Your task to perform on an android device: Add bose soundsport free to the cart on ebay, then select checkout. Image 0: 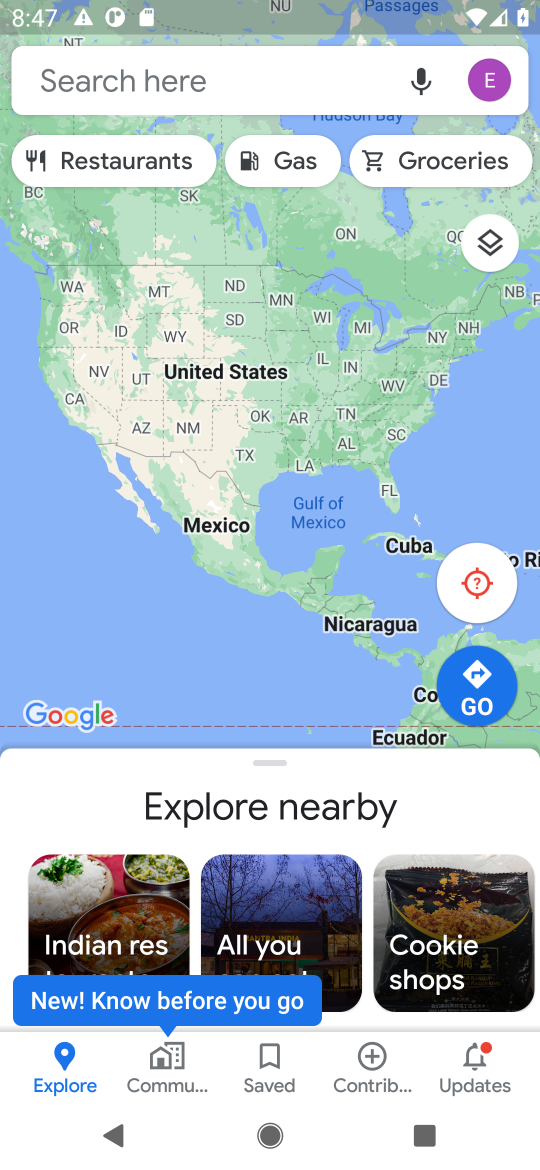
Step 0: press home button
Your task to perform on an android device: Add bose soundsport free to the cart on ebay, then select checkout. Image 1: 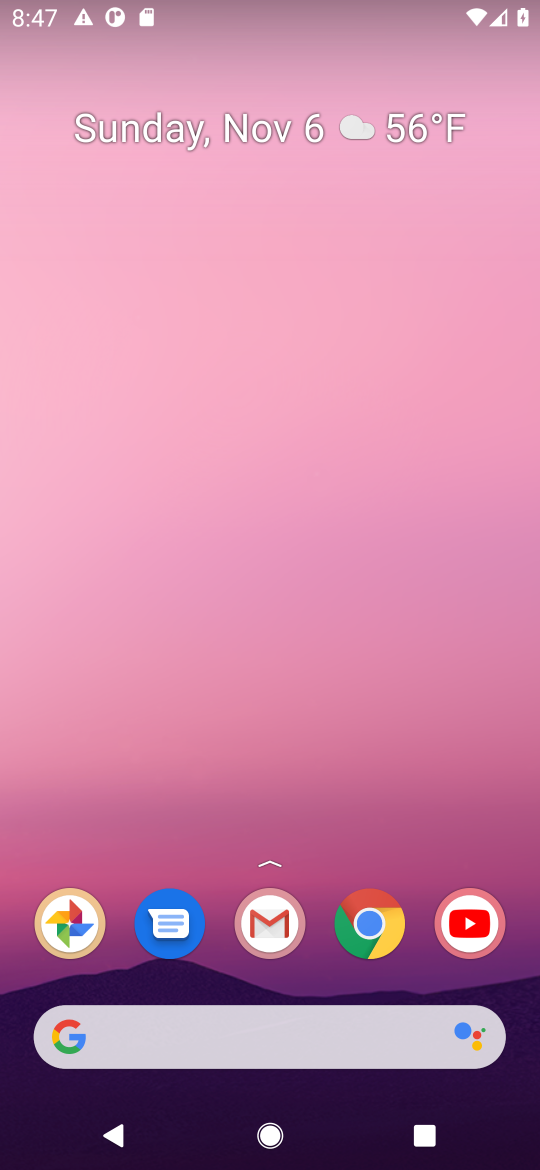
Step 1: click (357, 930)
Your task to perform on an android device: Add bose soundsport free to the cart on ebay, then select checkout. Image 2: 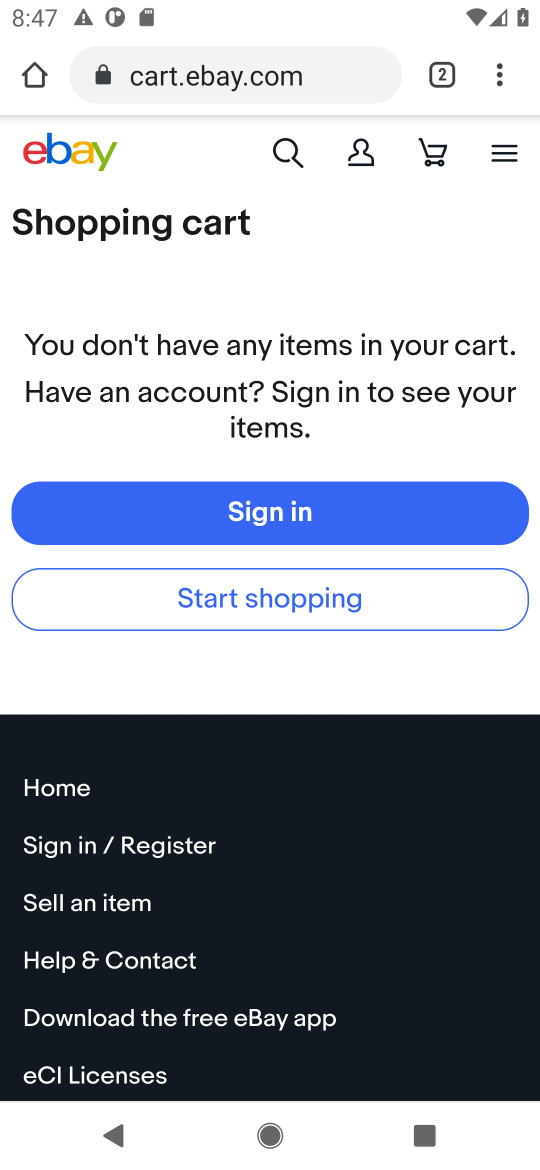
Step 2: click (274, 152)
Your task to perform on an android device: Add bose soundsport free to the cart on ebay, then select checkout. Image 3: 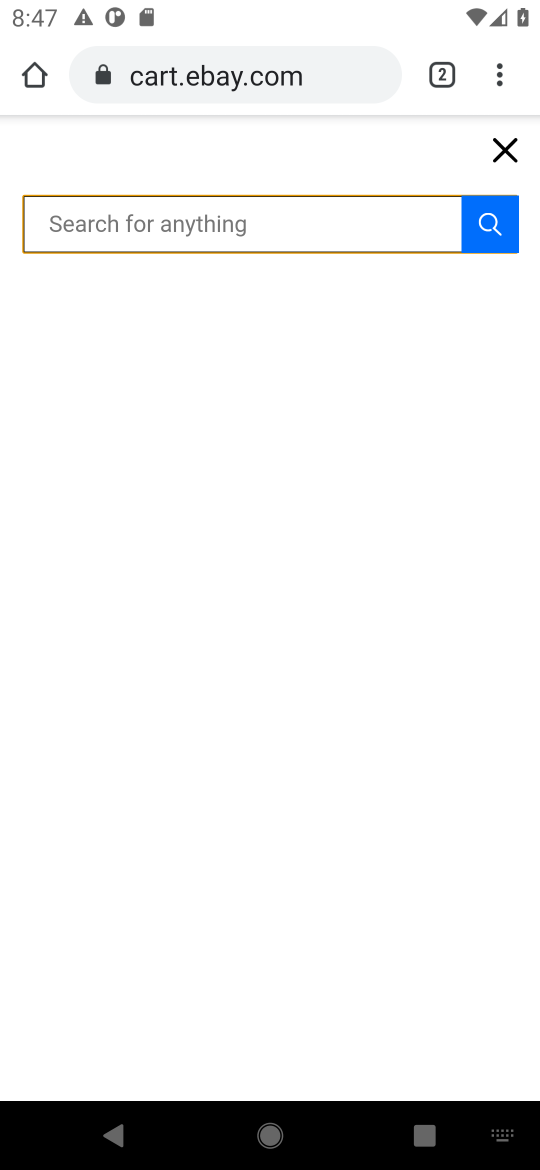
Step 3: type "bose soundsport free"
Your task to perform on an android device: Add bose soundsport free to the cart on ebay, then select checkout. Image 4: 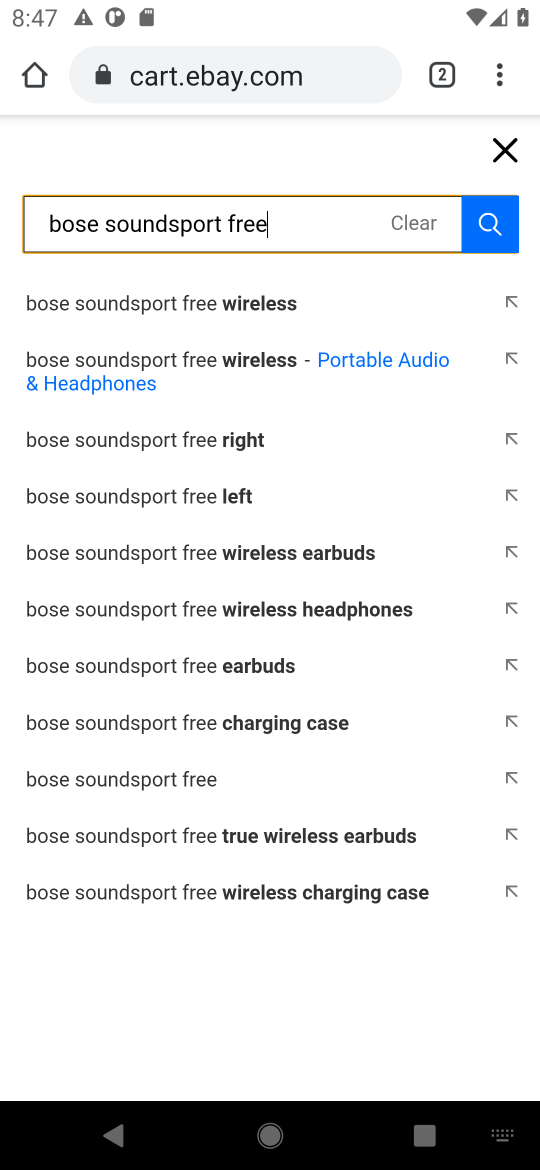
Step 4: click (494, 209)
Your task to perform on an android device: Add bose soundsport free to the cart on ebay, then select checkout. Image 5: 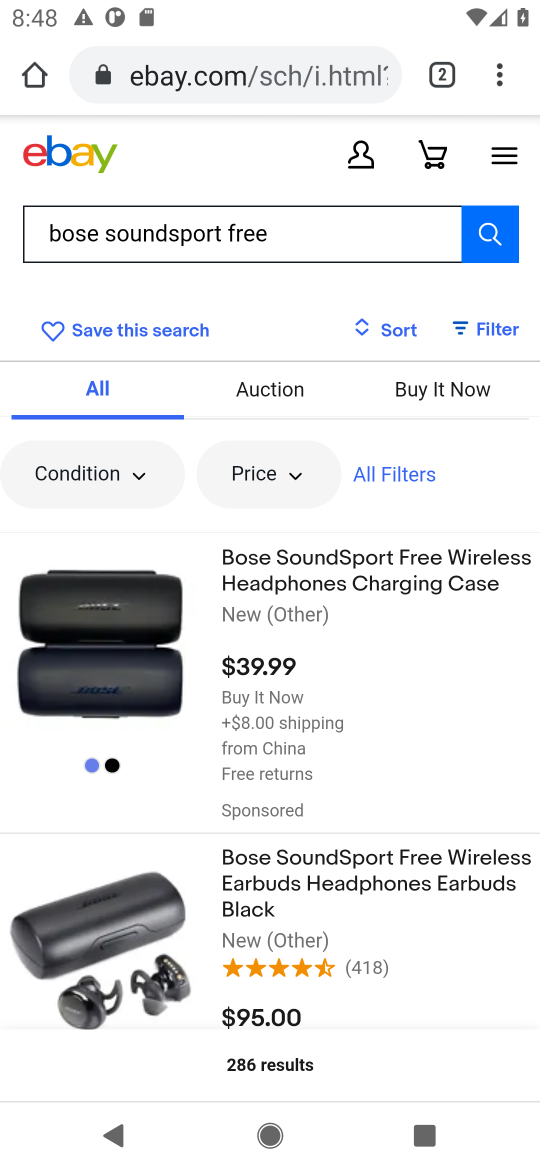
Step 5: click (109, 641)
Your task to perform on an android device: Add bose soundsport free to the cart on ebay, then select checkout. Image 6: 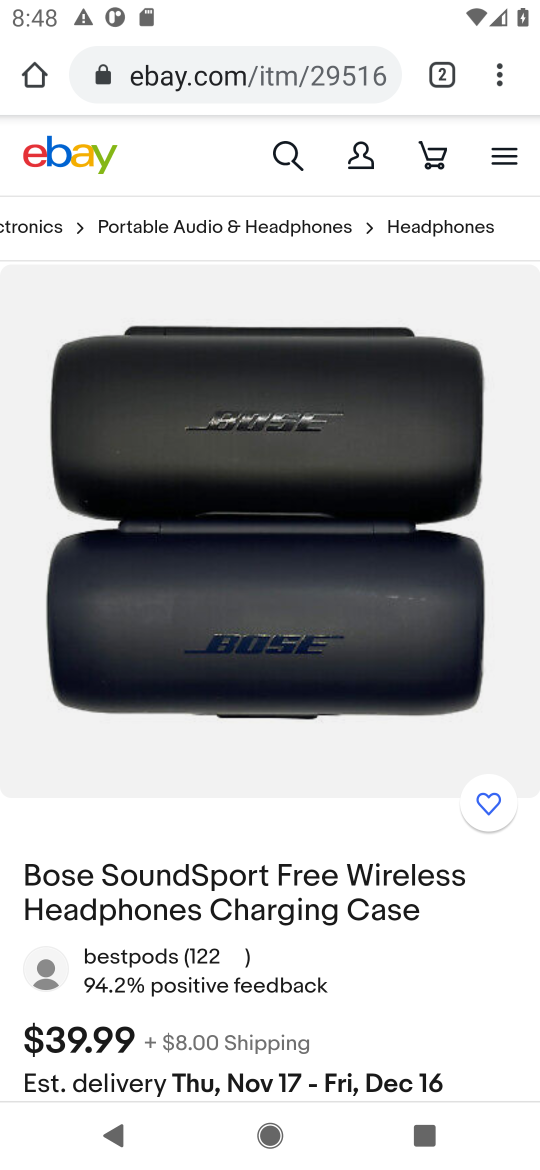
Step 6: drag from (225, 923) to (218, 373)
Your task to perform on an android device: Add bose soundsport free to the cart on ebay, then select checkout. Image 7: 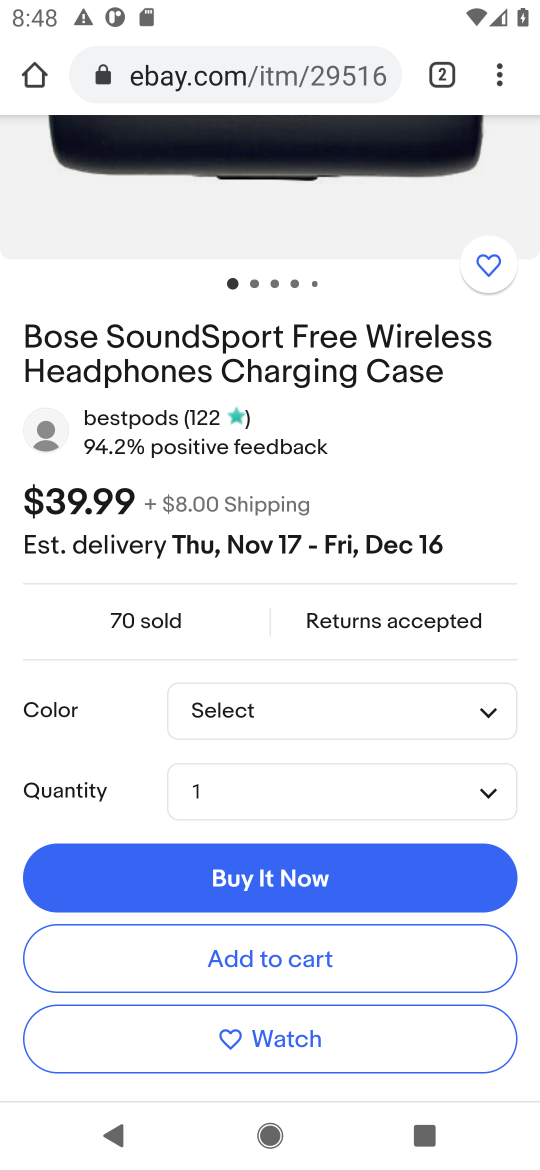
Step 7: click (273, 955)
Your task to perform on an android device: Add bose soundsport free to the cart on ebay, then select checkout. Image 8: 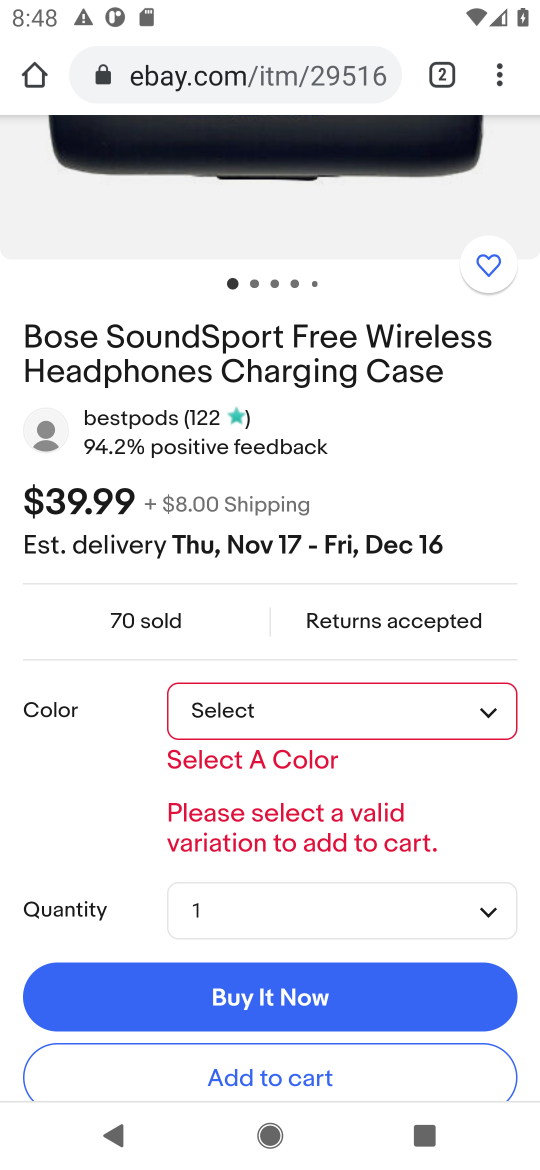
Step 8: click (496, 726)
Your task to perform on an android device: Add bose soundsport free to the cart on ebay, then select checkout. Image 9: 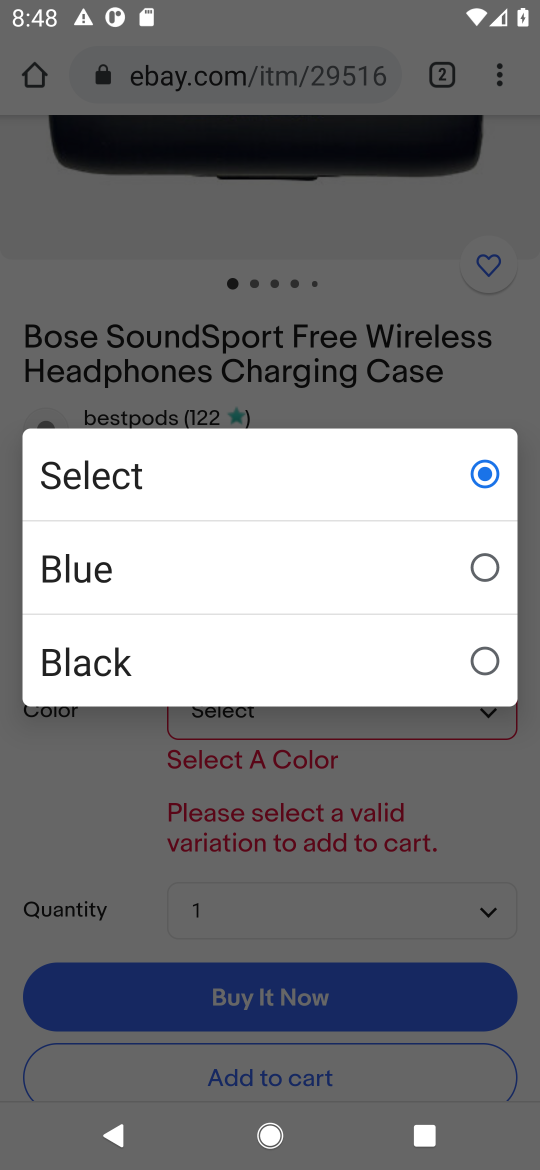
Step 9: click (92, 593)
Your task to perform on an android device: Add bose soundsport free to the cart on ebay, then select checkout. Image 10: 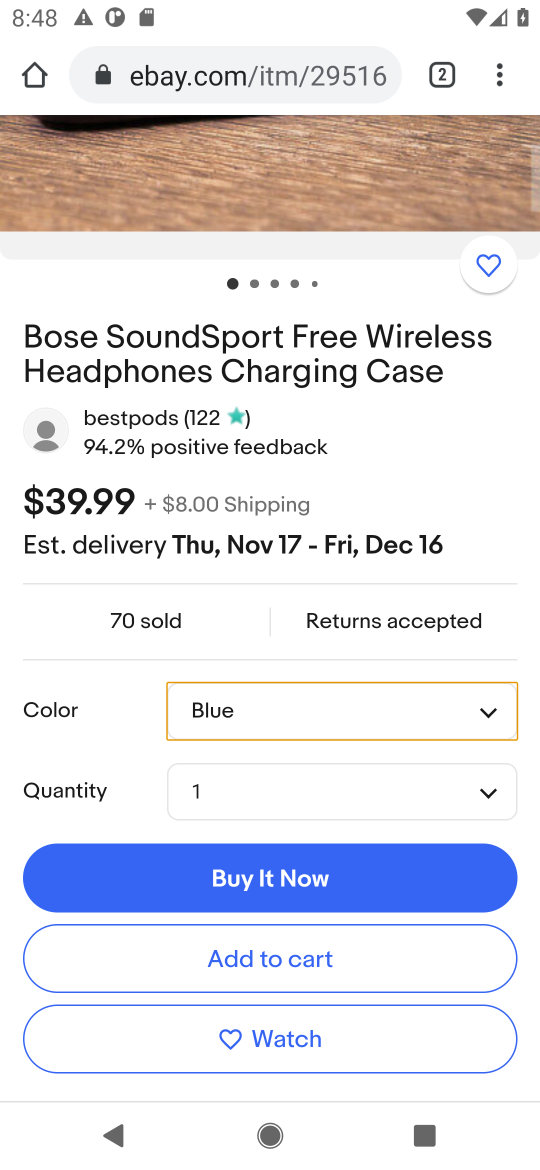
Step 10: click (288, 955)
Your task to perform on an android device: Add bose soundsport free to the cart on ebay, then select checkout. Image 11: 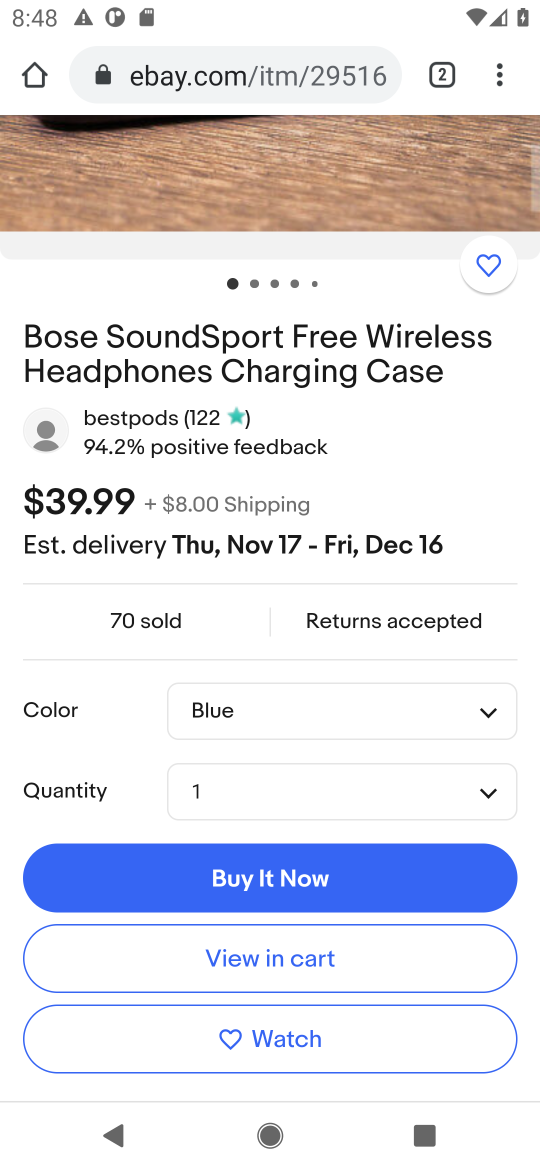
Step 11: click (288, 955)
Your task to perform on an android device: Add bose soundsport free to the cart on ebay, then select checkout. Image 12: 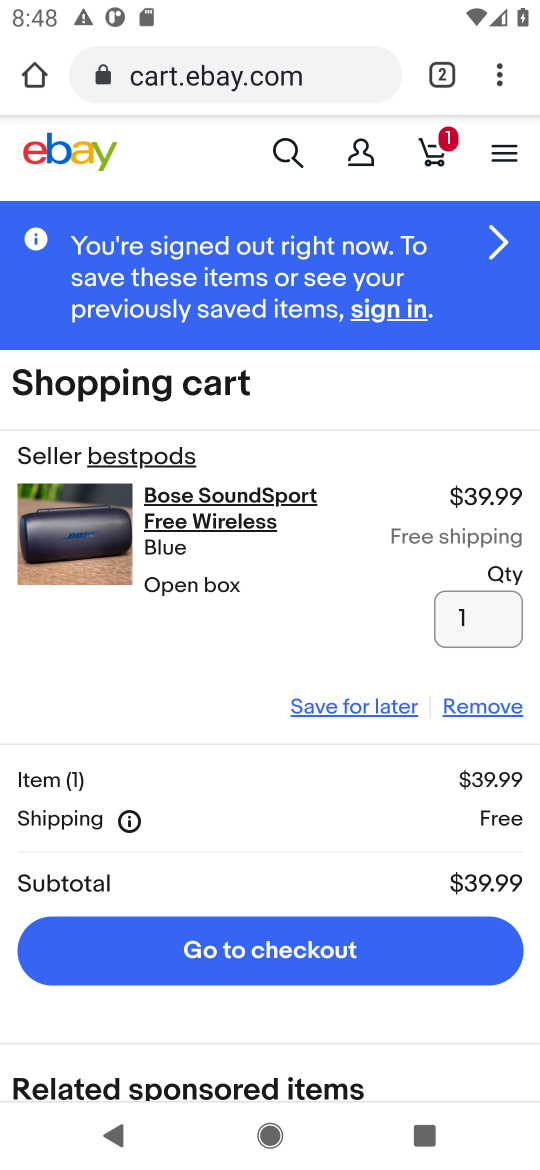
Step 12: click (285, 957)
Your task to perform on an android device: Add bose soundsport free to the cart on ebay, then select checkout. Image 13: 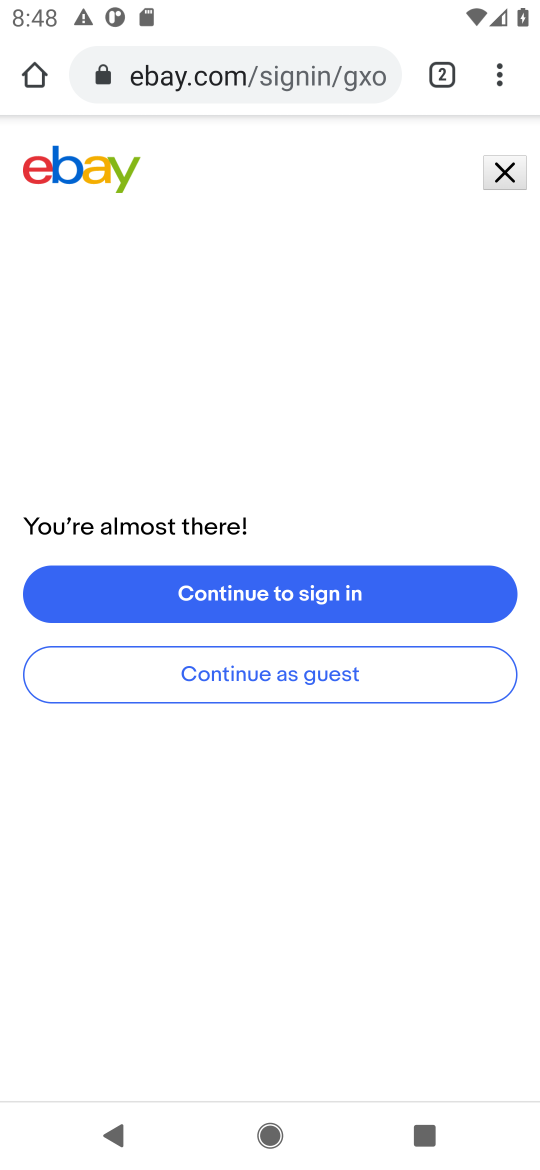
Step 13: click (498, 165)
Your task to perform on an android device: Add bose soundsport free to the cart on ebay, then select checkout. Image 14: 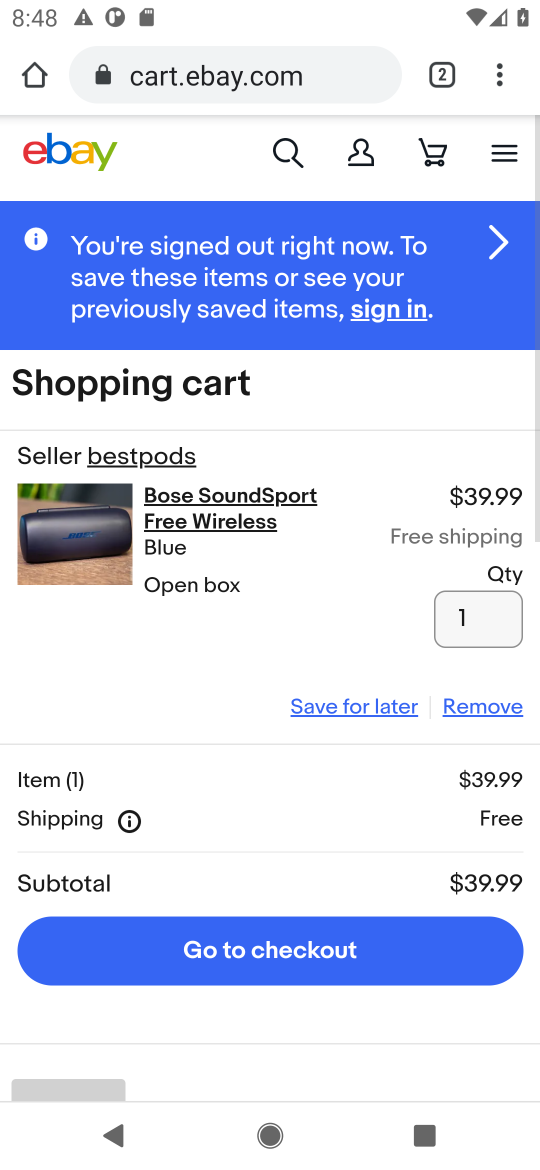
Step 14: click (278, 973)
Your task to perform on an android device: Add bose soundsport free to the cart on ebay, then select checkout. Image 15: 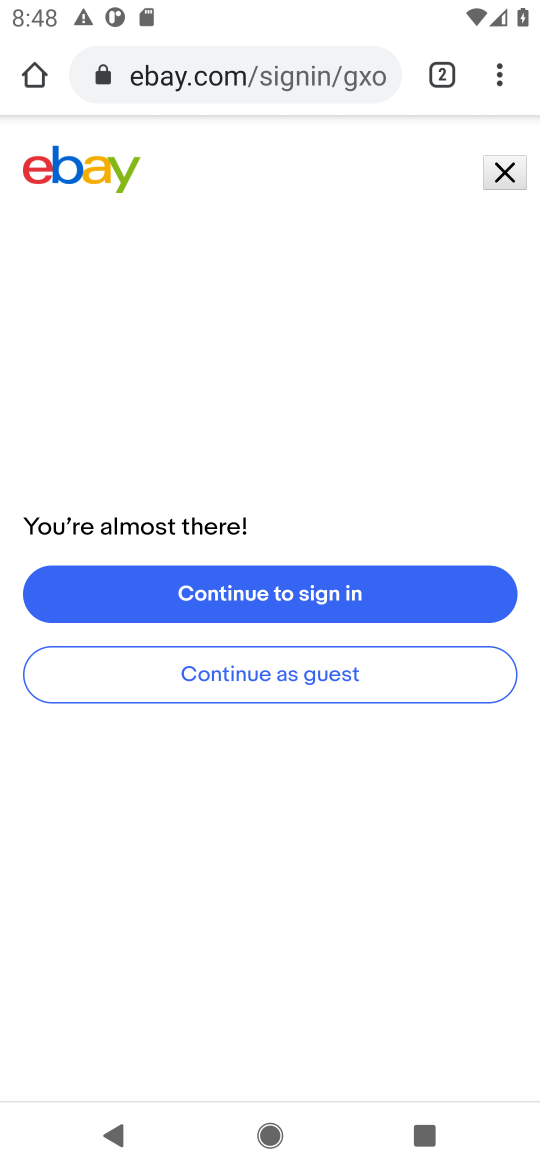
Step 15: task complete